Your task to perform on an android device: Open internet settings Image 0: 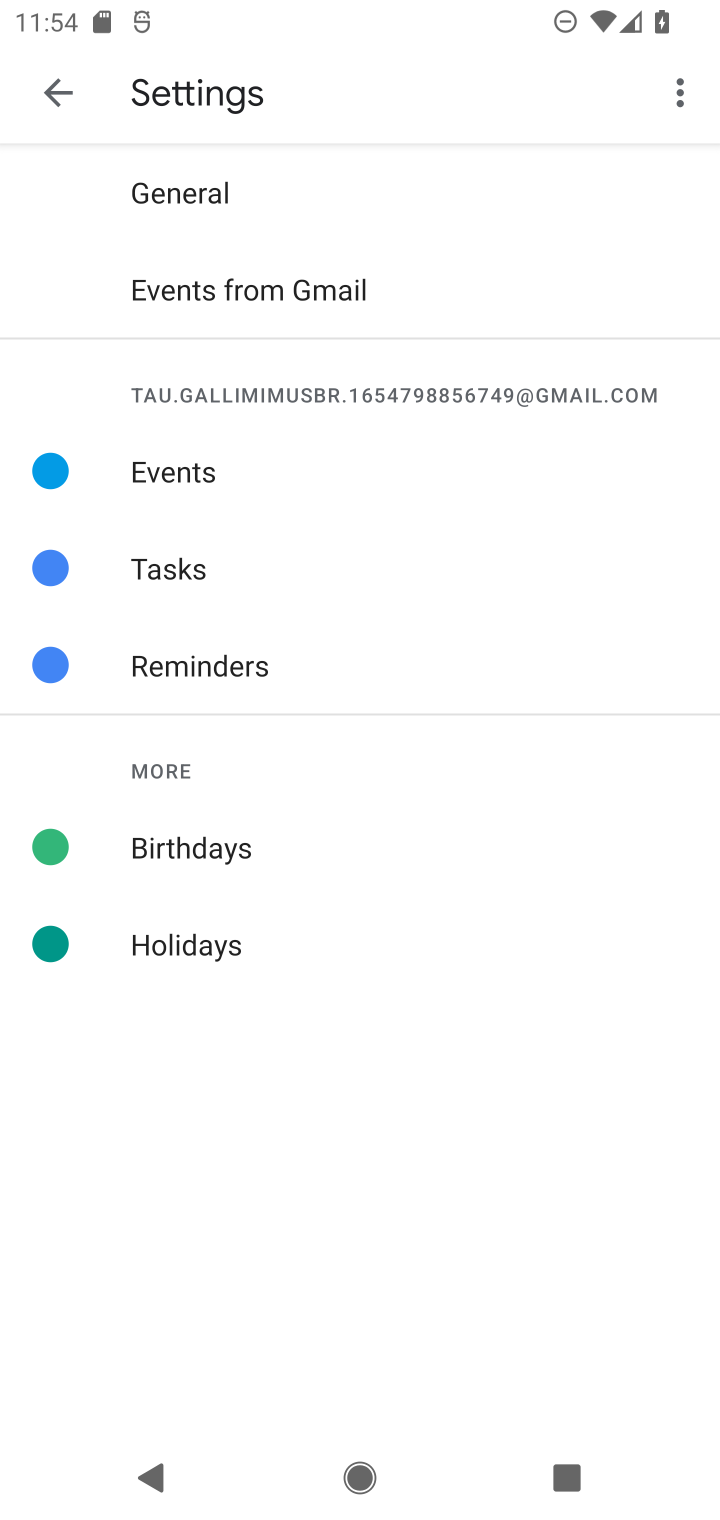
Step 0: press home button
Your task to perform on an android device: Open internet settings Image 1: 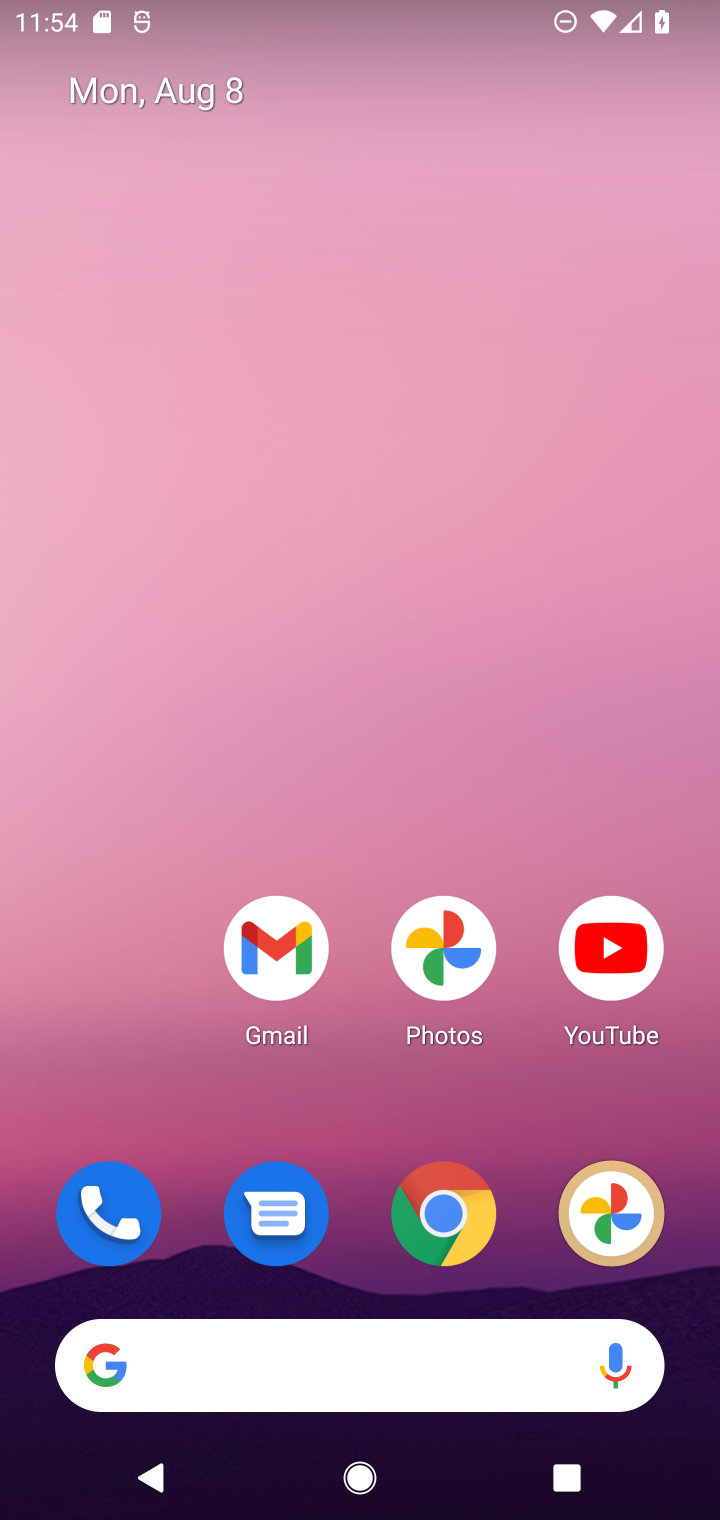
Step 1: drag from (360, 1150) to (352, 47)
Your task to perform on an android device: Open internet settings Image 2: 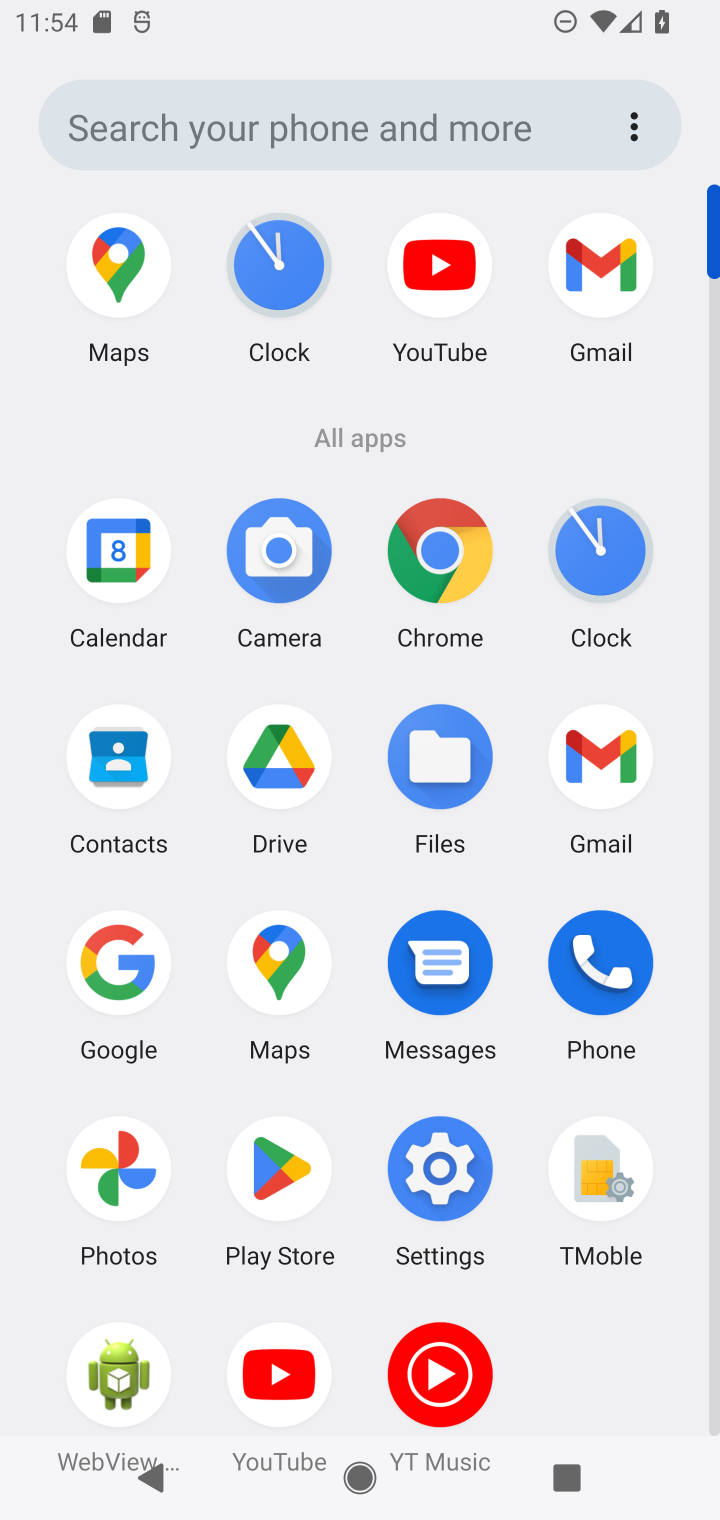
Step 2: click (438, 1161)
Your task to perform on an android device: Open internet settings Image 3: 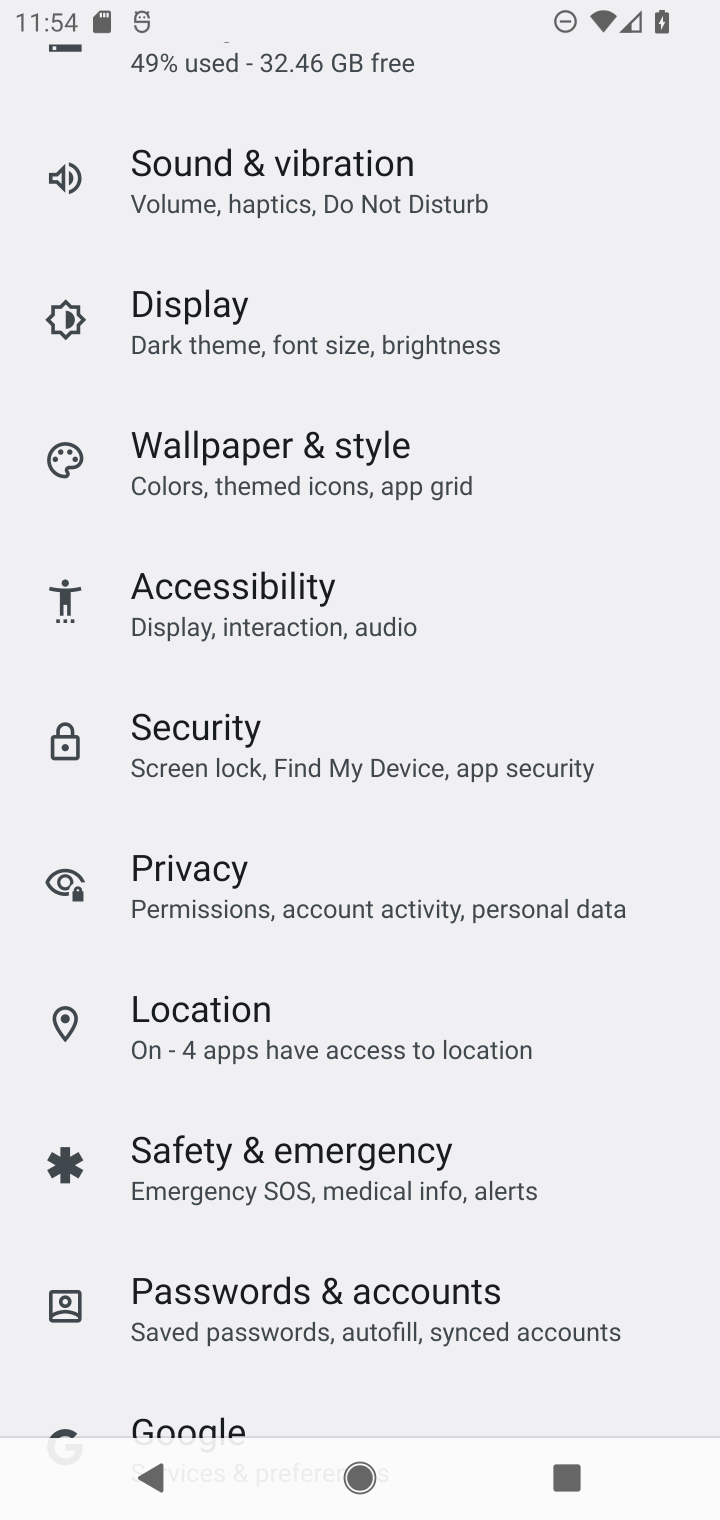
Step 3: drag from (296, 208) to (403, 1307)
Your task to perform on an android device: Open internet settings Image 4: 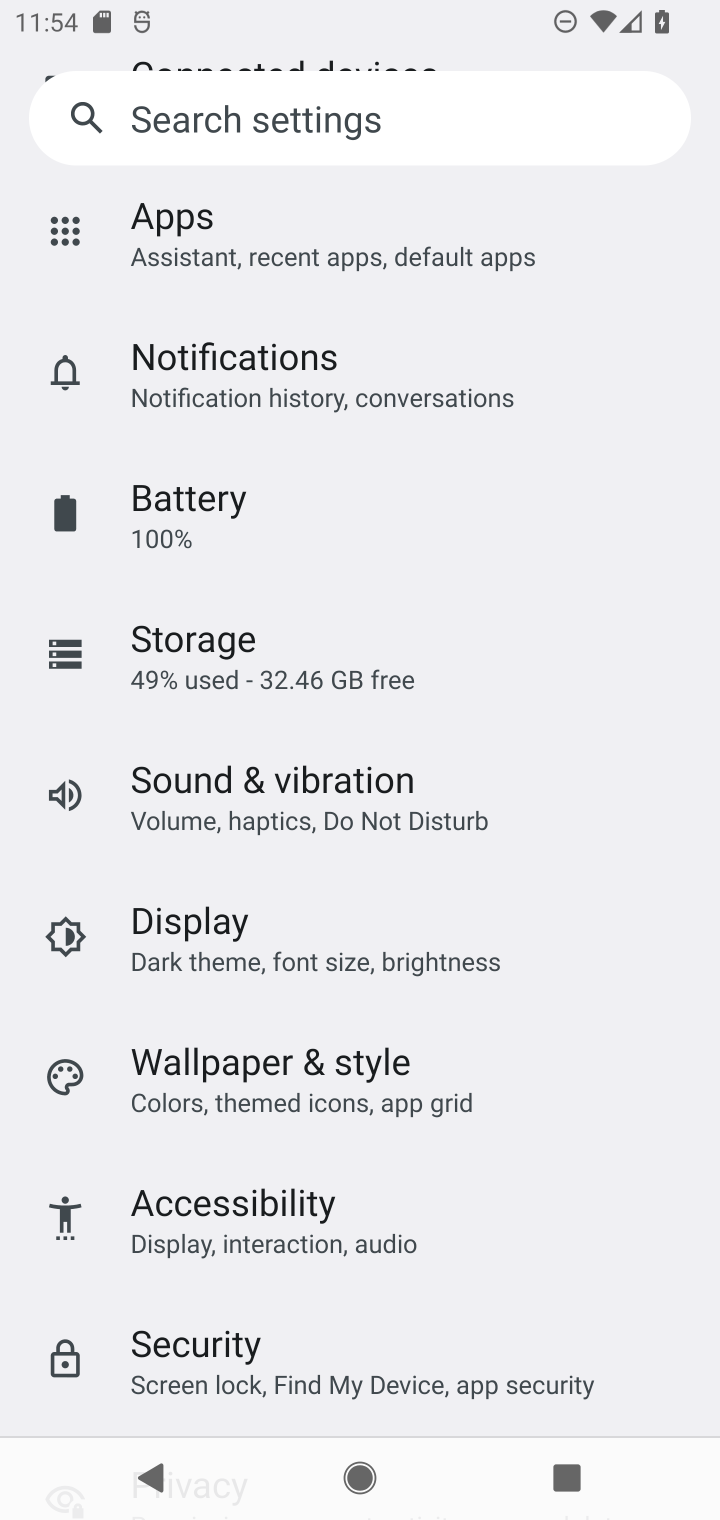
Step 4: drag from (287, 333) to (341, 1113)
Your task to perform on an android device: Open internet settings Image 5: 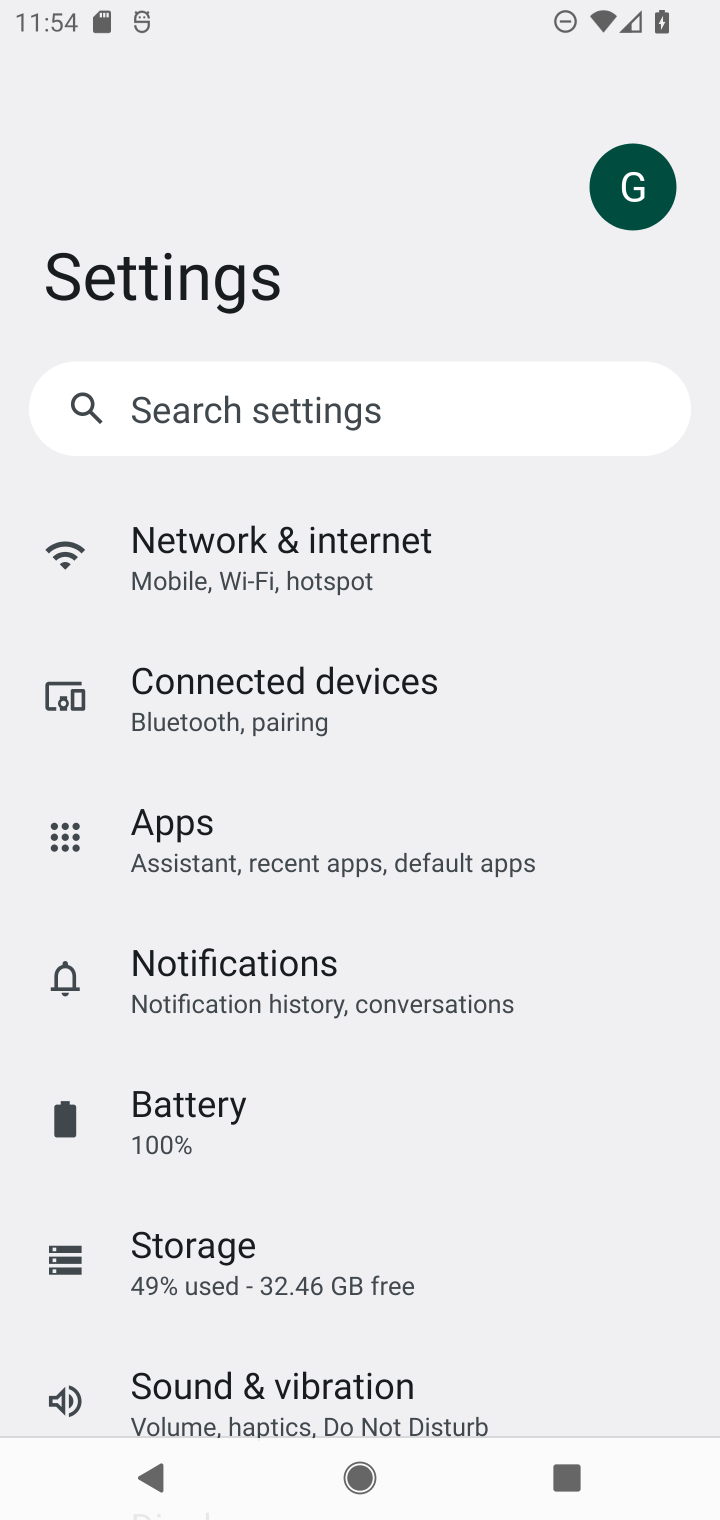
Step 5: click (284, 555)
Your task to perform on an android device: Open internet settings Image 6: 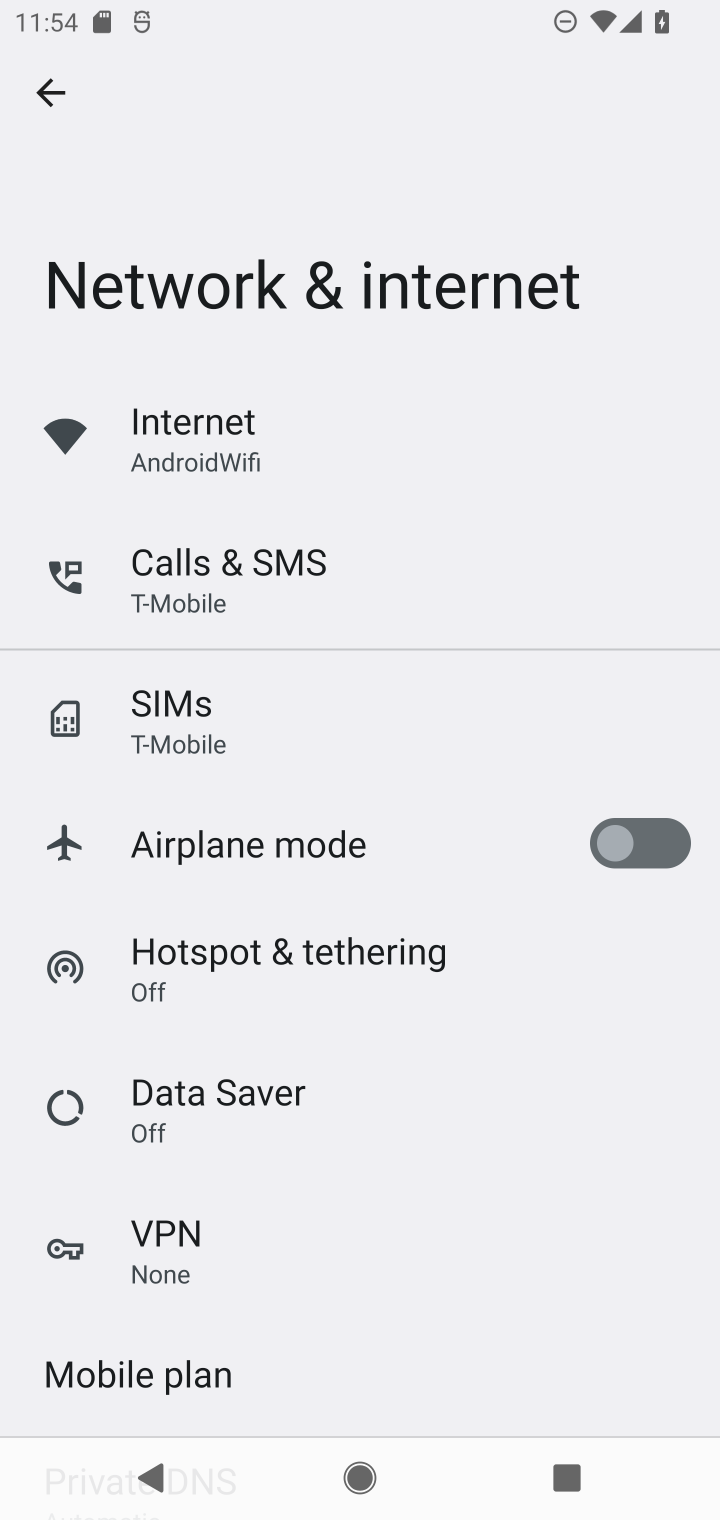
Step 6: click (278, 437)
Your task to perform on an android device: Open internet settings Image 7: 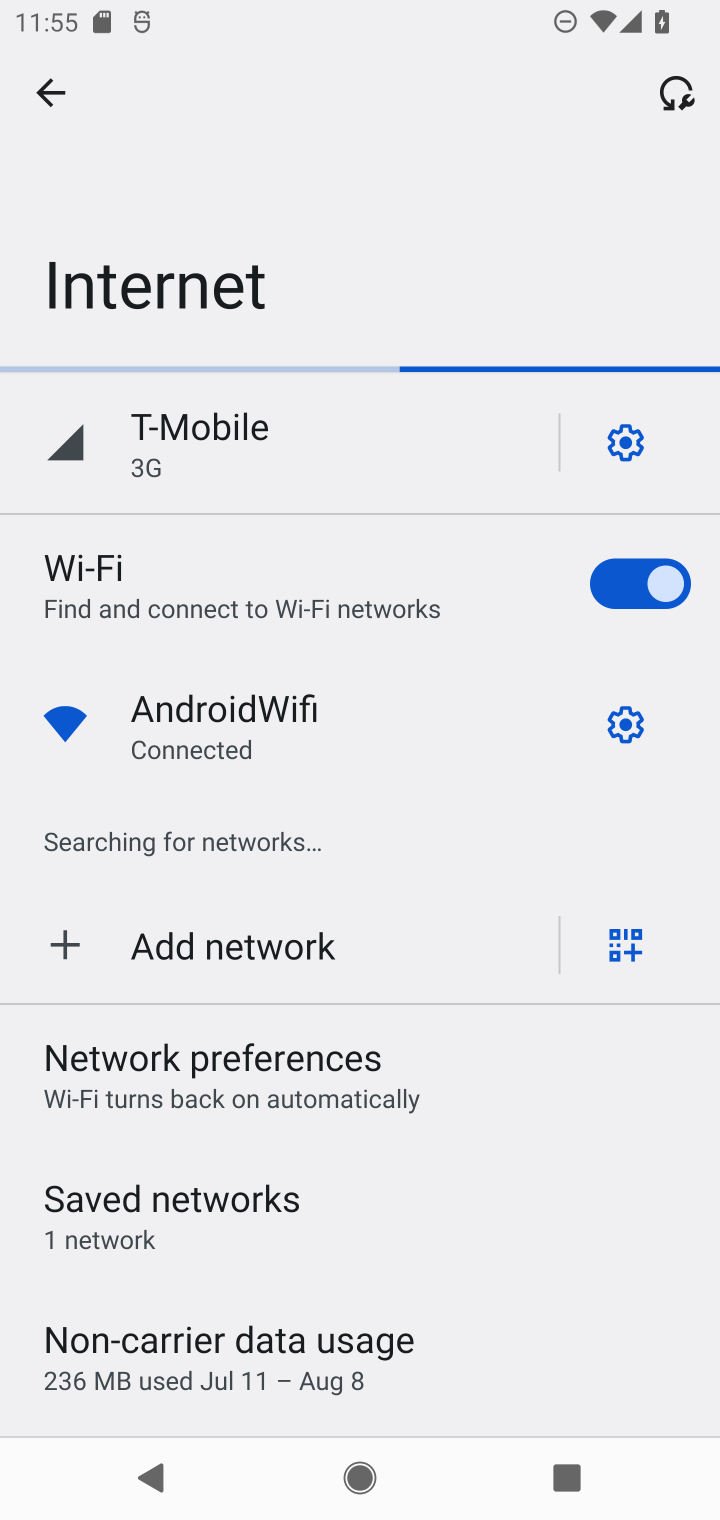
Step 7: task complete